Your task to perform on an android device: see creations saved in the google photos Image 0: 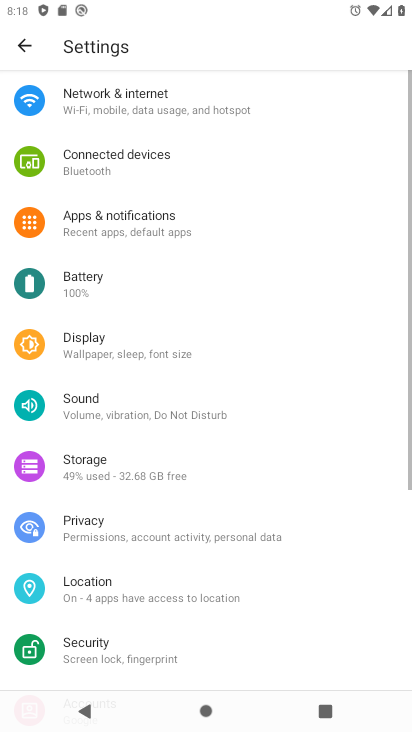
Step 0: press home button
Your task to perform on an android device: see creations saved in the google photos Image 1: 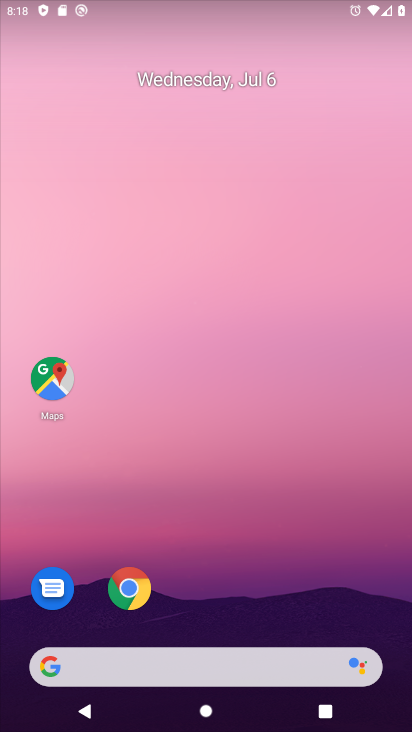
Step 1: drag from (305, 644) to (298, 265)
Your task to perform on an android device: see creations saved in the google photos Image 2: 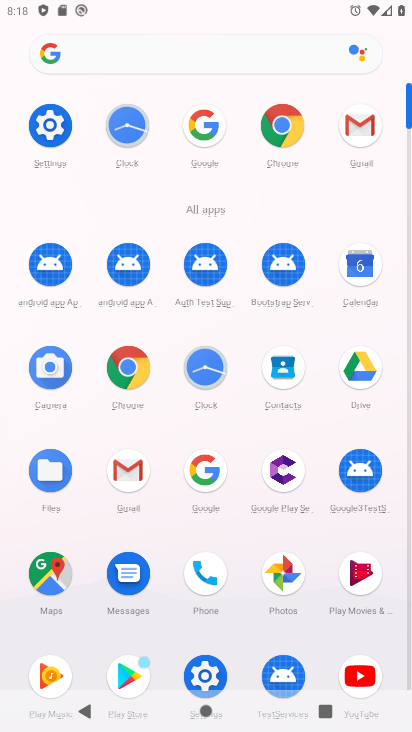
Step 2: click (283, 568)
Your task to perform on an android device: see creations saved in the google photos Image 3: 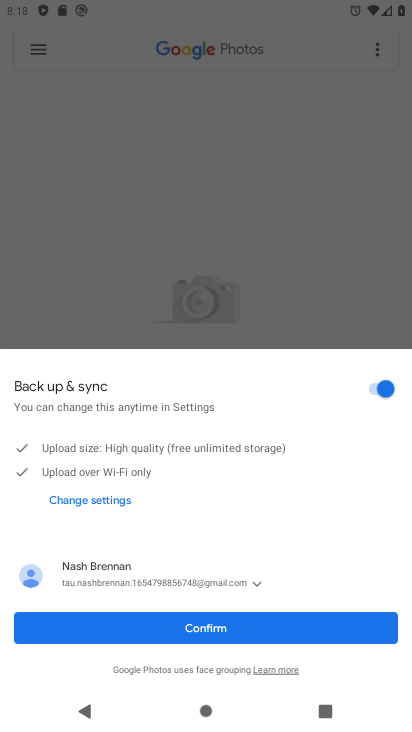
Step 3: click (240, 616)
Your task to perform on an android device: see creations saved in the google photos Image 4: 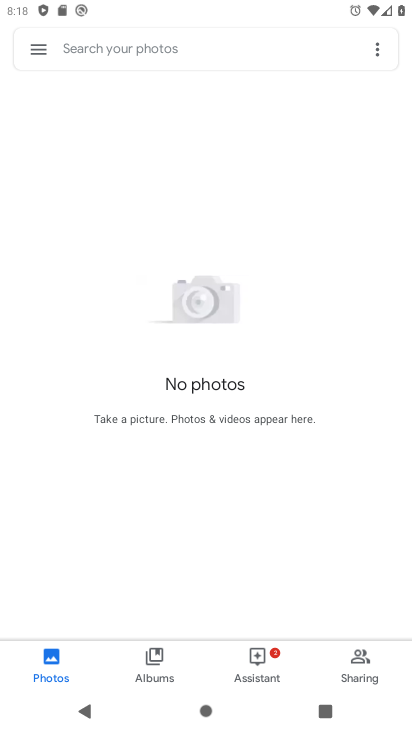
Step 4: click (143, 651)
Your task to perform on an android device: see creations saved in the google photos Image 5: 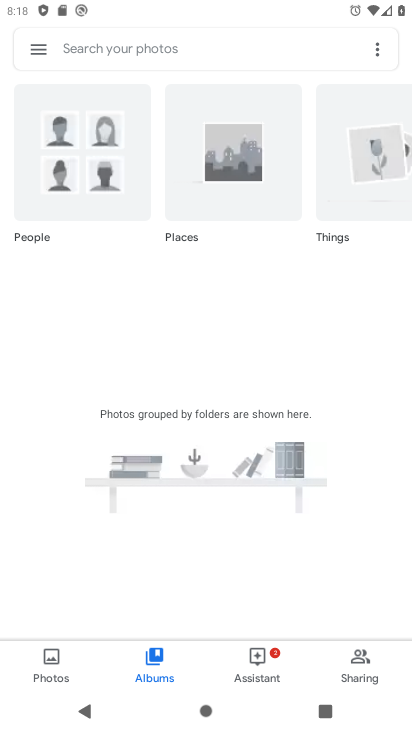
Step 5: drag from (181, 254) to (198, 527)
Your task to perform on an android device: see creations saved in the google photos Image 6: 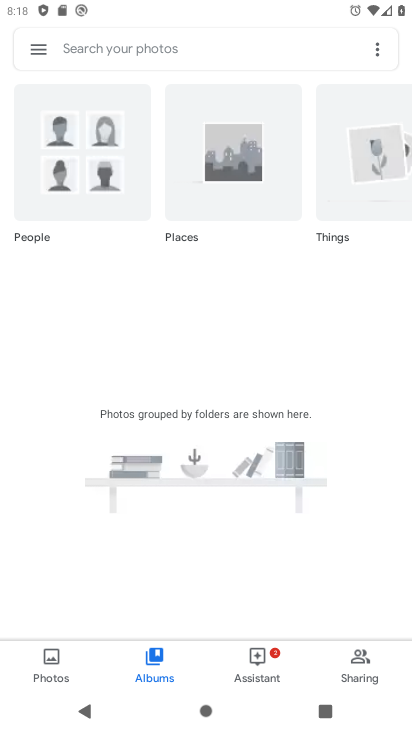
Step 6: click (164, 665)
Your task to perform on an android device: see creations saved in the google photos Image 7: 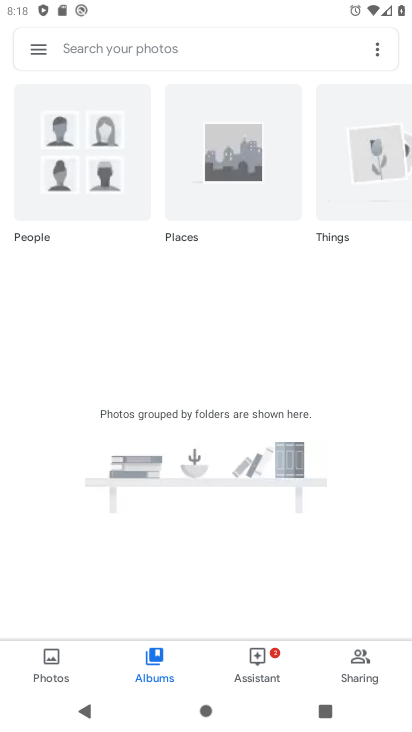
Step 7: click (164, 663)
Your task to perform on an android device: see creations saved in the google photos Image 8: 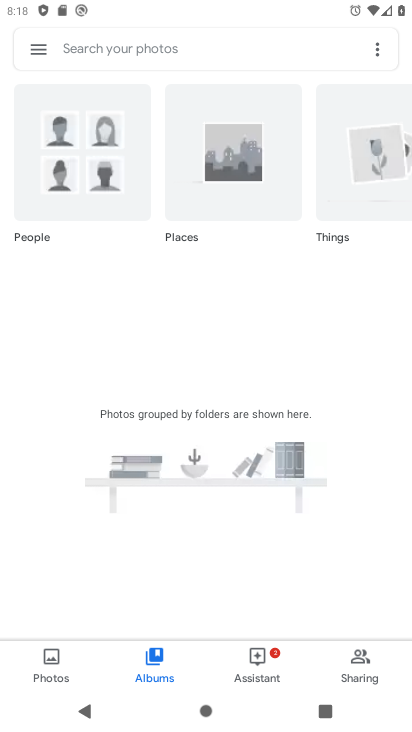
Step 8: click (39, 662)
Your task to perform on an android device: see creations saved in the google photos Image 9: 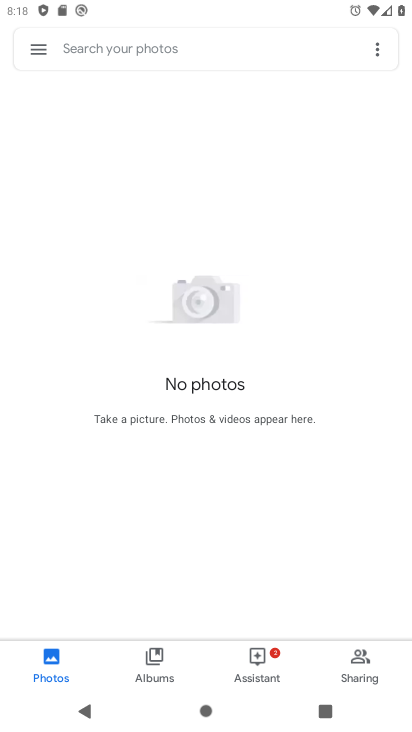
Step 9: click (123, 664)
Your task to perform on an android device: see creations saved in the google photos Image 10: 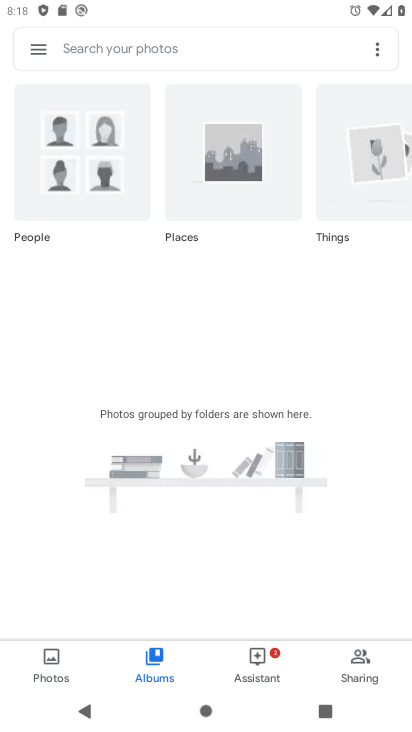
Step 10: task complete